Your task to perform on an android device: Search for vegetarian restaurants on Maps Image 0: 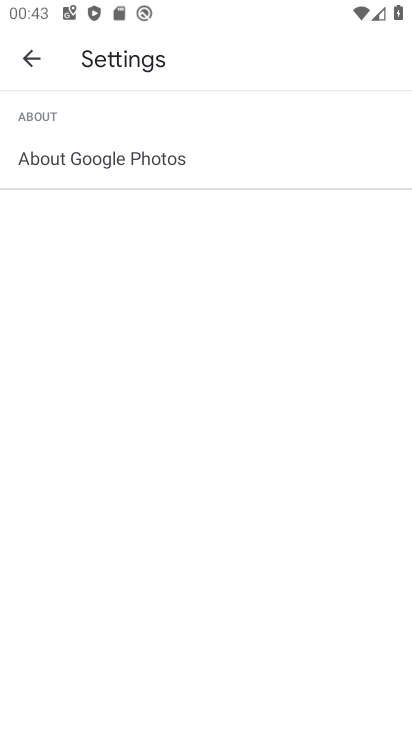
Step 0: press home button
Your task to perform on an android device: Search for vegetarian restaurants on Maps Image 1: 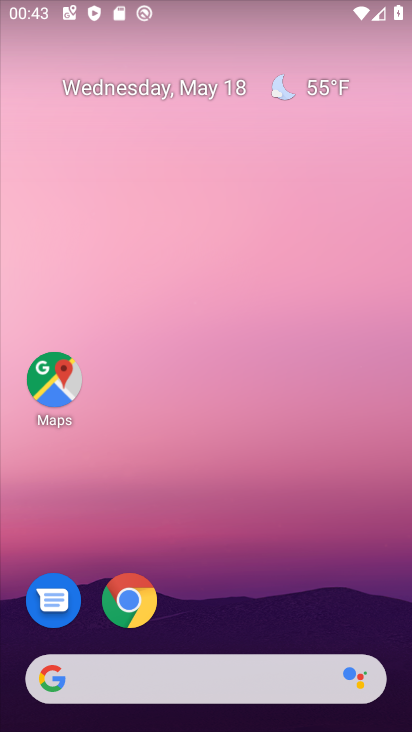
Step 1: click (57, 386)
Your task to perform on an android device: Search for vegetarian restaurants on Maps Image 2: 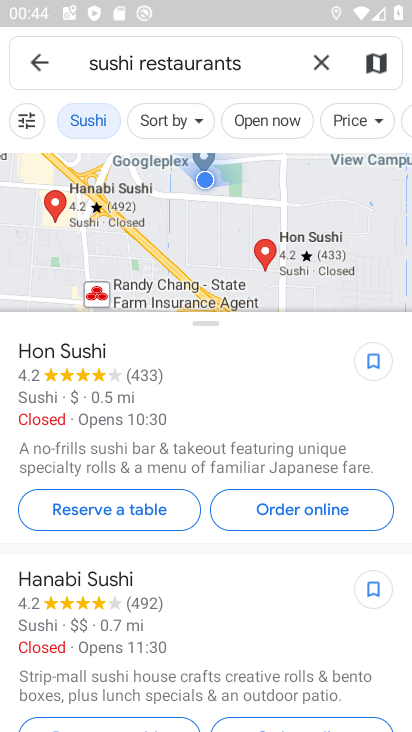
Step 2: click (320, 73)
Your task to perform on an android device: Search for vegetarian restaurants on Maps Image 3: 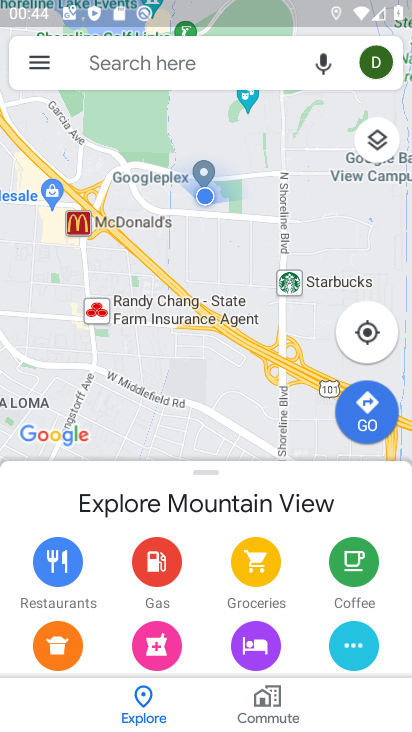
Step 3: click (176, 73)
Your task to perform on an android device: Search for vegetarian restaurants on Maps Image 4: 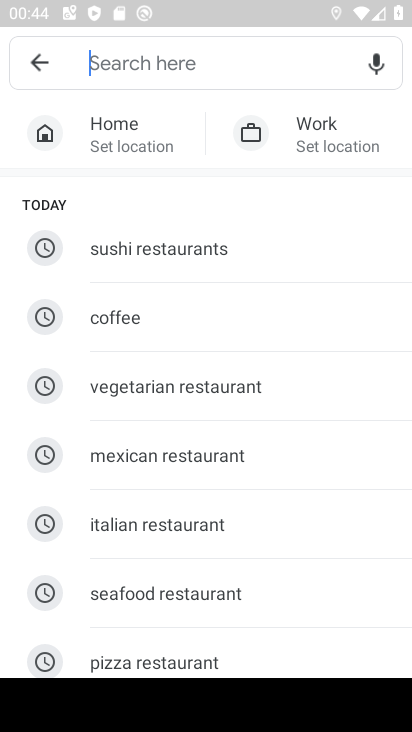
Step 4: click (189, 397)
Your task to perform on an android device: Search for vegetarian restaurants on Maps Image 5: 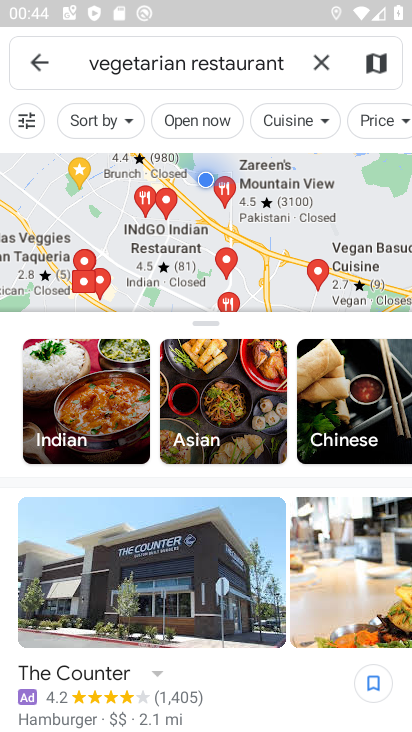
Step 5: task complete